Your task to perform on an android device: Open Youtube and go to "Your channel" Image 0: 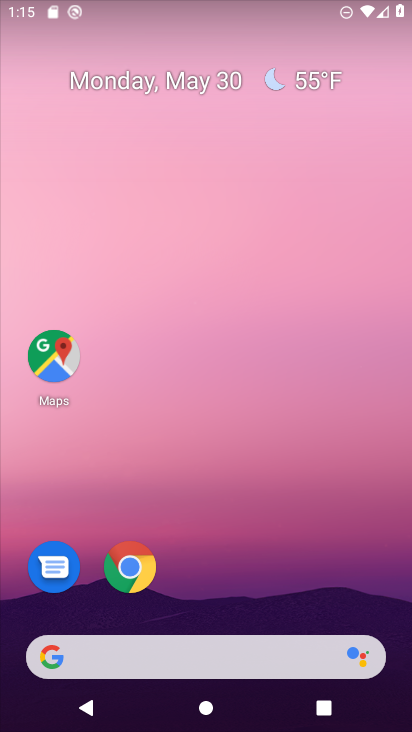
Step 0: press home button
Your task to perform on an android device: Open Youtube and go to "Your channel" Image 1: 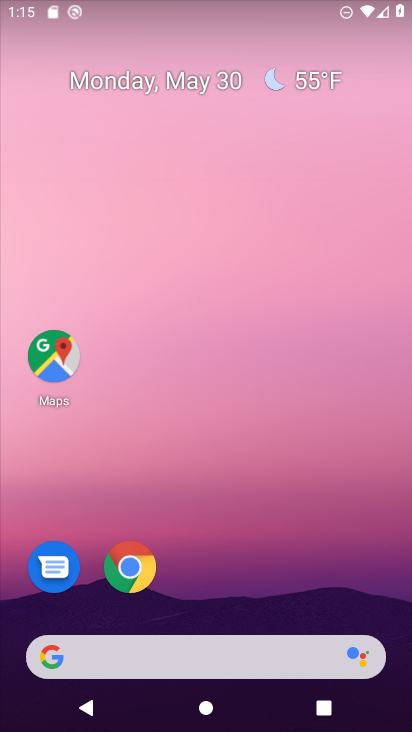
Step 1: drag from (227, 610) to (226, 60)
Your task to perform on an android device: Open Youtube and go to "Your channel" Image 2: 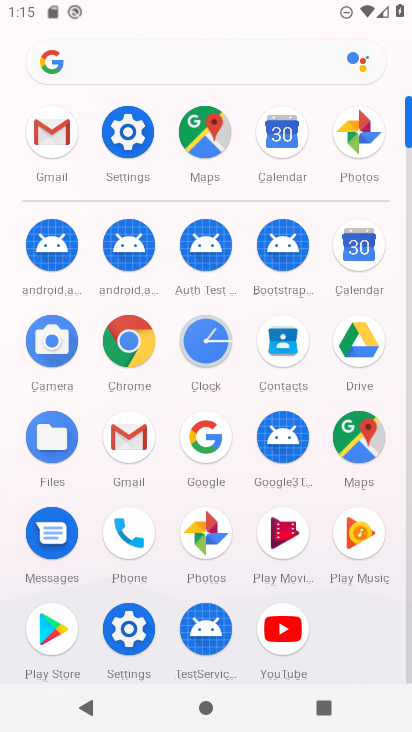
Step 2: click (283, 619)
Your task to perform on an android device: Open Youtube and go to "Your channel" Image 3: 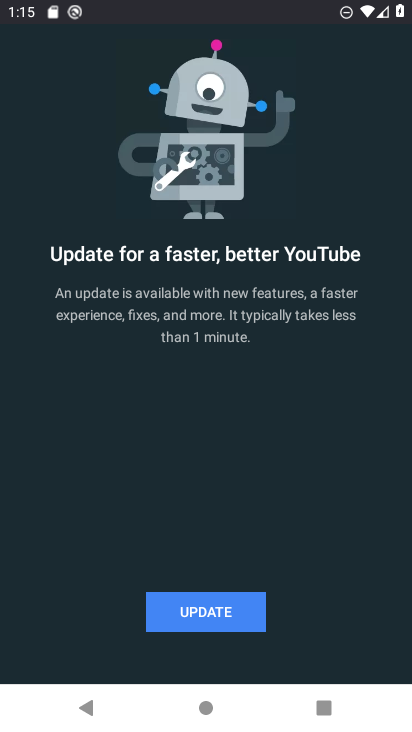
Step 3: click (203, 611)
Your task to perform on an android device: Open Youtube and go to "Your channel" Image 4: 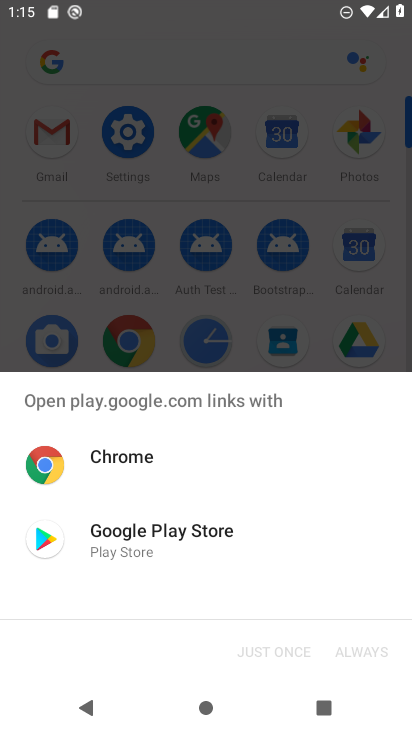
Step 4: click (114, 543)
Your task to perform on an android device: Open Youtube and go to "Your channel" Image 5: 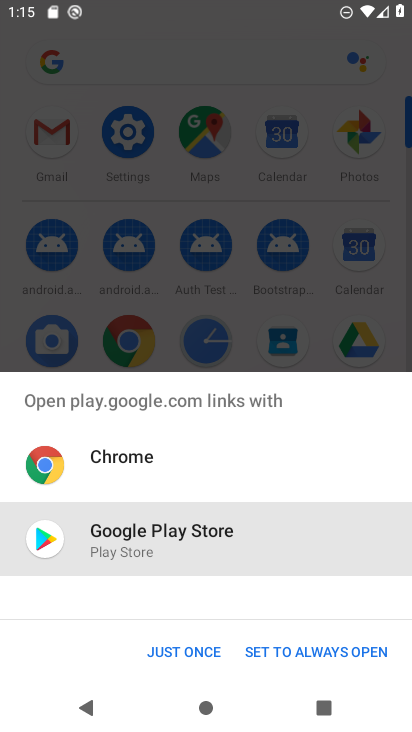
Step 5: click (175, 645)
Your task to perform on an android device: Open Youtube and go to "Your channel" Image 6: 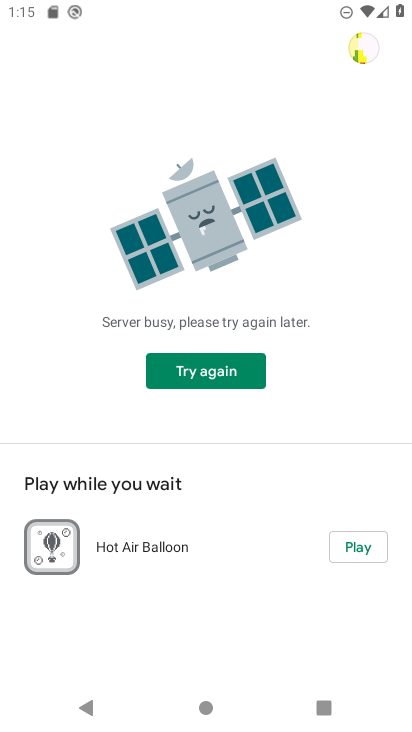
Step 6: task complete